Your task to perform on an android device: Open Youtube and go to "Your channel" Image 0: 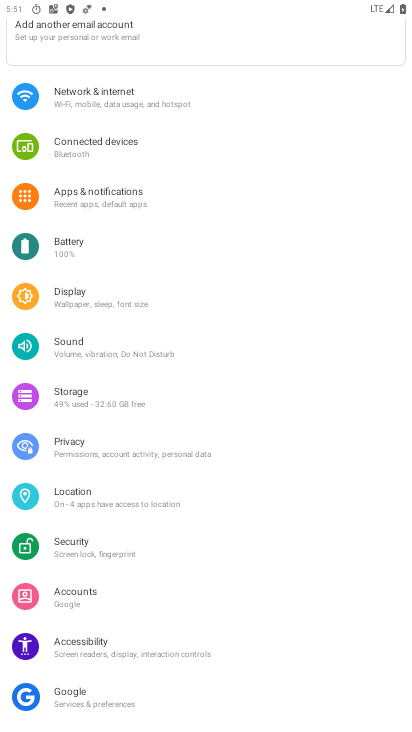
Step 0: press home button
Your task to perform on an android device: Open Youtube and go to "Your channel" Image 1: 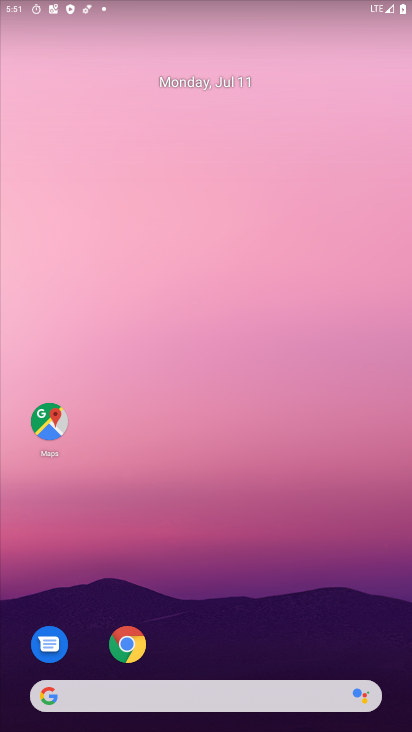
Step 1: drag from (252, 690) to (275, 146)
Your task to perform on an android device: Open Youtube and go to "Your channel" Image 2: 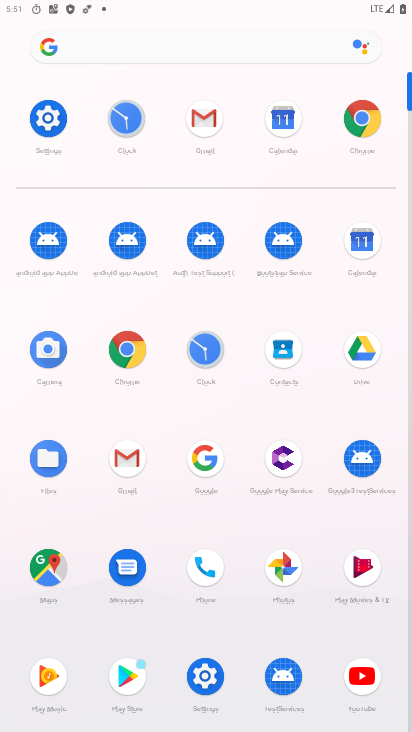
Step 2: click (370, 671)
Your task to perform on an android device: Open Youtube and go to "Your channel" Image 3: 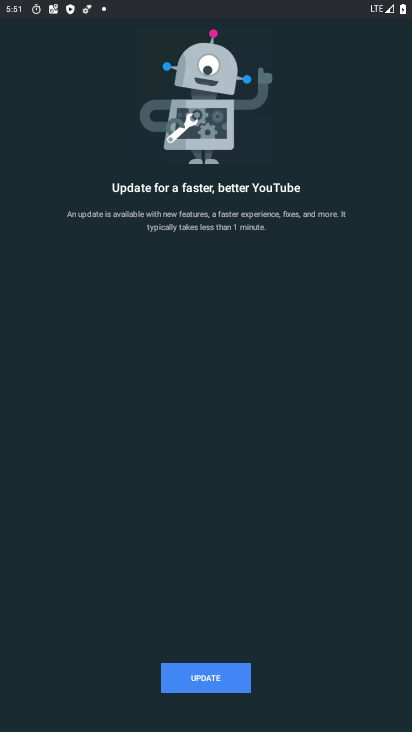
Step 3: click (212, 679)
Your task to perform on an android device: Open Youtube and go to "Your channel" Image 4: 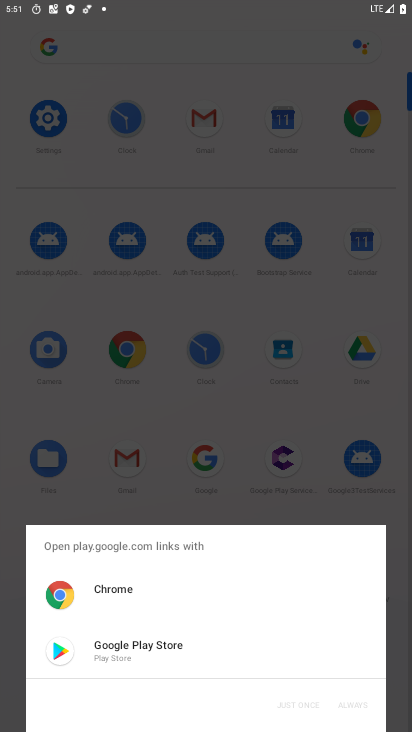
Step 4: drag from (132, 649) to (171, 649)
Your task to perform on an android device: Open Youtube and go to "Your channel" Image 5: 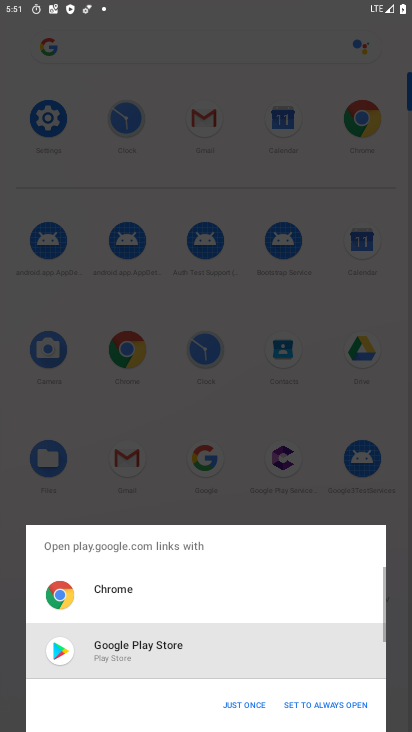
Step 5: click (246, 697)
Your task to perform on an android device: Open Youtube and go to "Your channel" Image 6: 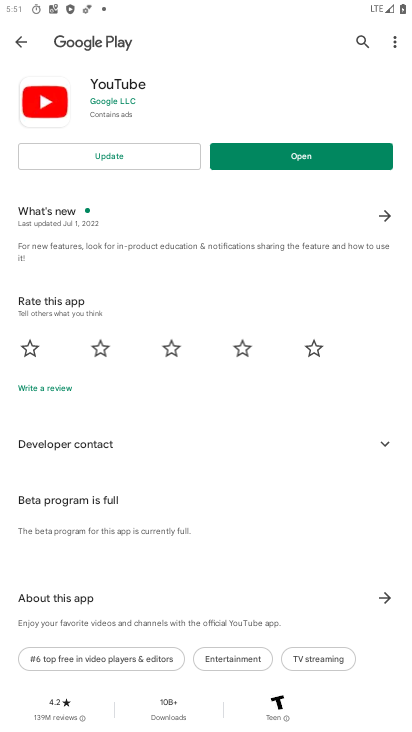
Step 6: click (159, 148)
Your task to perform on an android device: Open Youtube and go to "Your channel" Image 7: 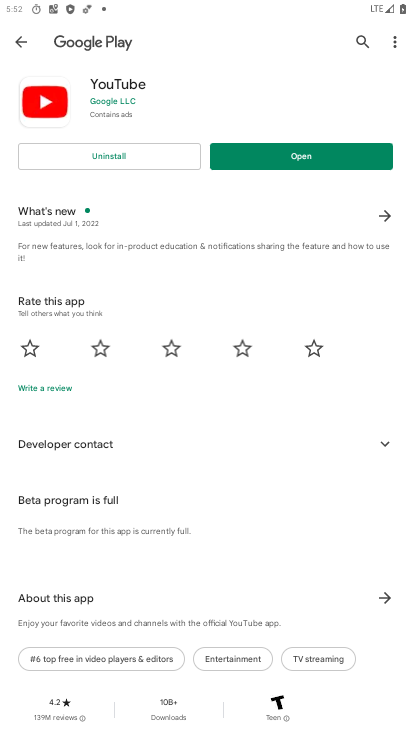
Step 7: click (270, 171)
Your task to perform on an android device: Open Youtube and go to "Your channel" Image 8: 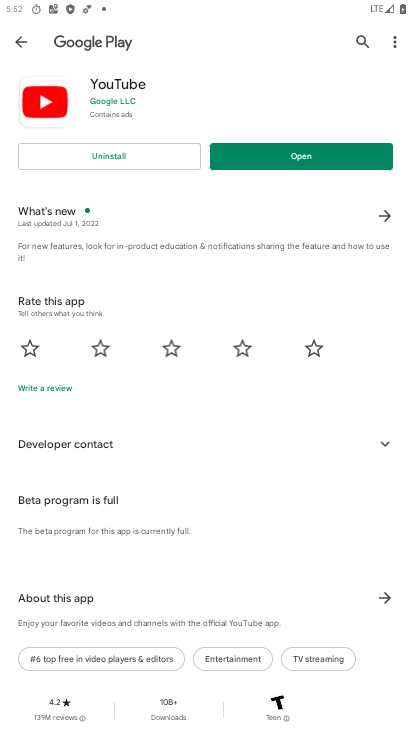
Step 8: click (332, 155)
Your task to perform on an android device: Open Youtube and go to "Your channel" Image 9: 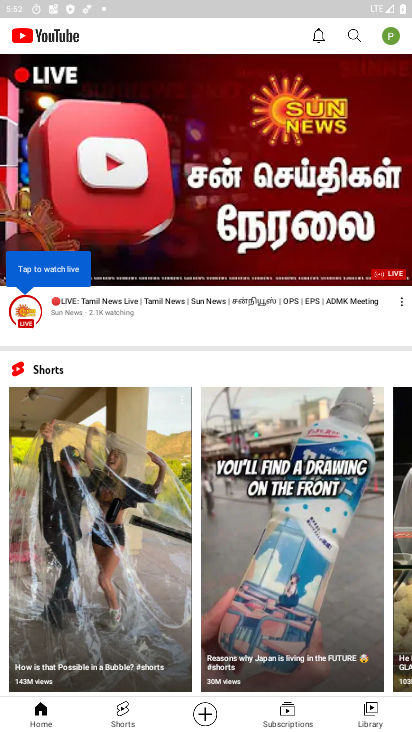
Step 9: click (391, 30)
Your task to perform on an android device: Open Youtube and go to "Your channel" Image 10: 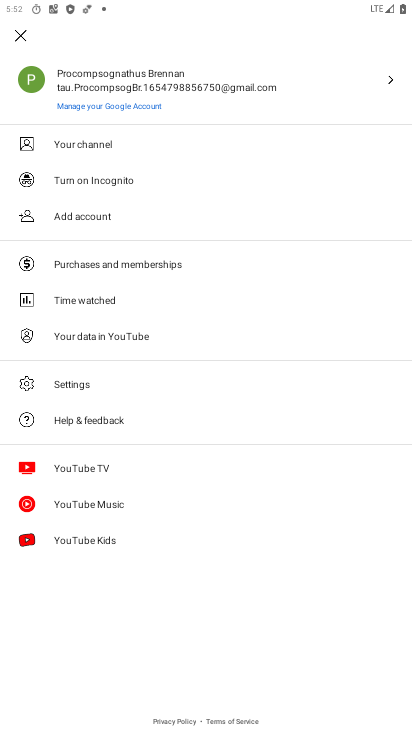
Step 10: click (102, 144)
Your task to perform on an android device: Open Youtube and go to "Your channel" Image 11: 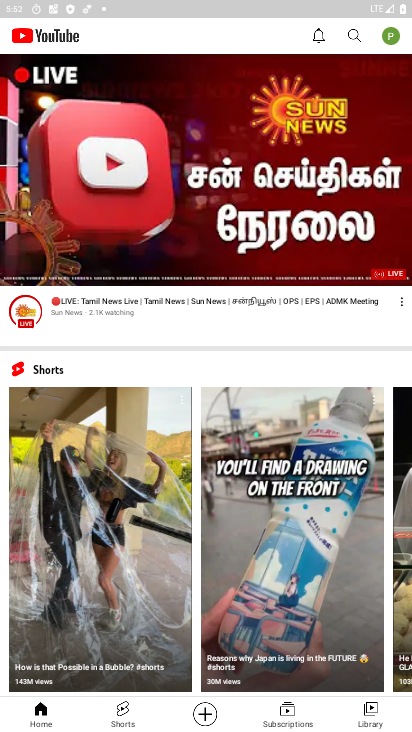
Step 11: click (399, 38)
Your task to perform on an android device: Open Youtube and go to "Your channel" Image 12: 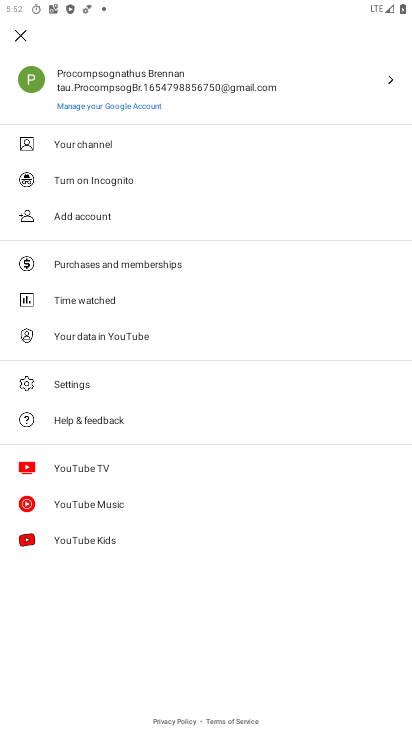
Step 12: click (116, 145)
Your task to perform on an android device: Open Youtube and go to "Your channel" Image 13: 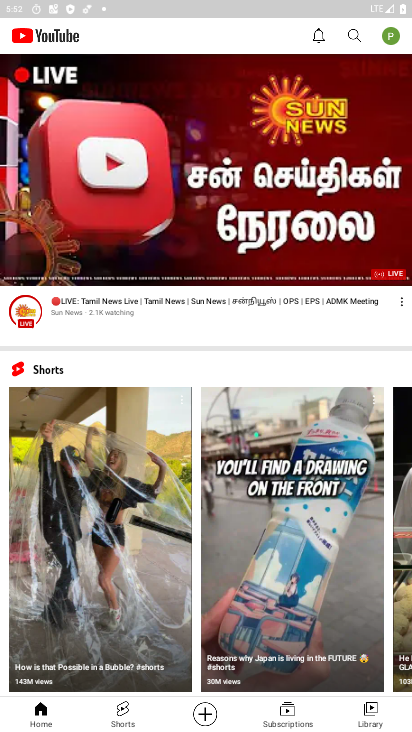
Step 13: task complete